Your task to perform on an android device: Open Chrome and go to the settings page Image 0: 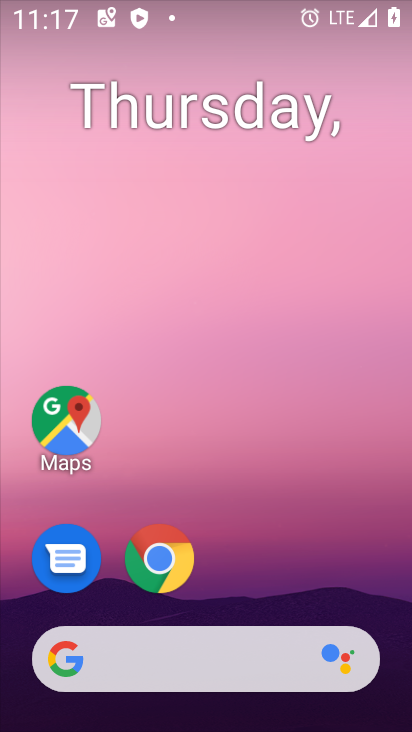
Step 0: press home button
Your task to perform on an android device: Open Chrome and go to the settings page Image 1: 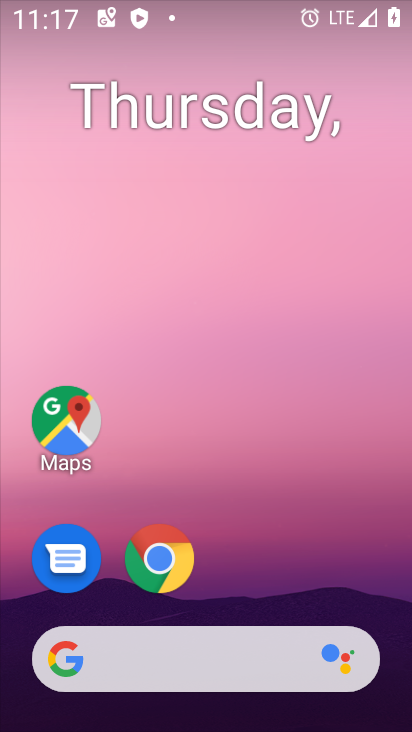
Step 1: drag from (329, 564) to (337, 108)
Your task to perform on an android device: Open Chrome and go to the settings page Image 2: 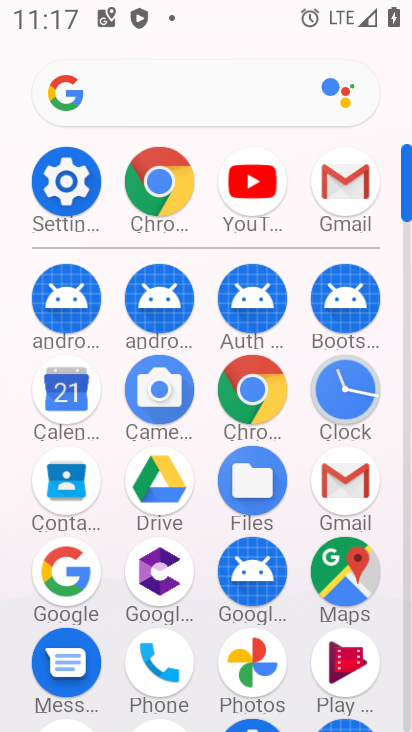
Step 2: click (263, 384)
Your task to perform on an android device: Open Chrome and go to the settings page Image 3: 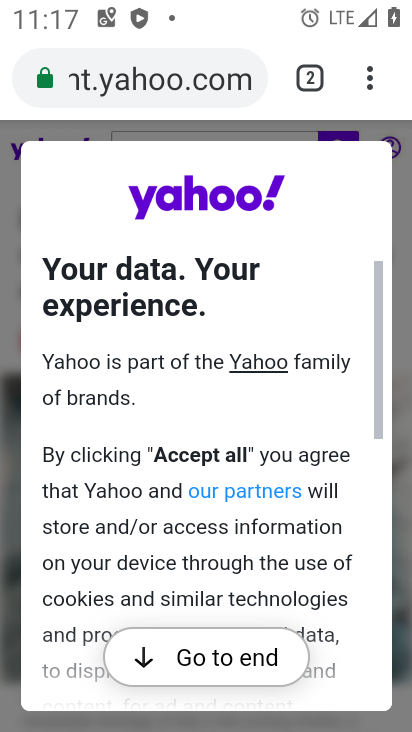
Step 3: click (370, 85)
Your task to perform on an android device: Open Chrome and go to the settings page Image 4: 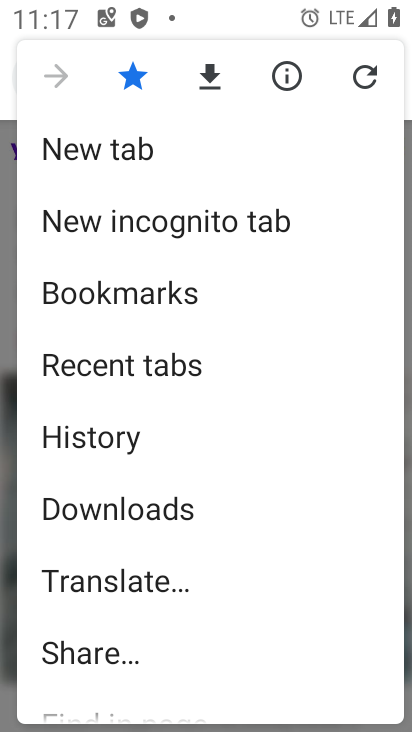
Step 4: drag from (340, 435) to (339, 338)
Your task to perform on an android device: Open Chrome and go to the settings page Image 5: 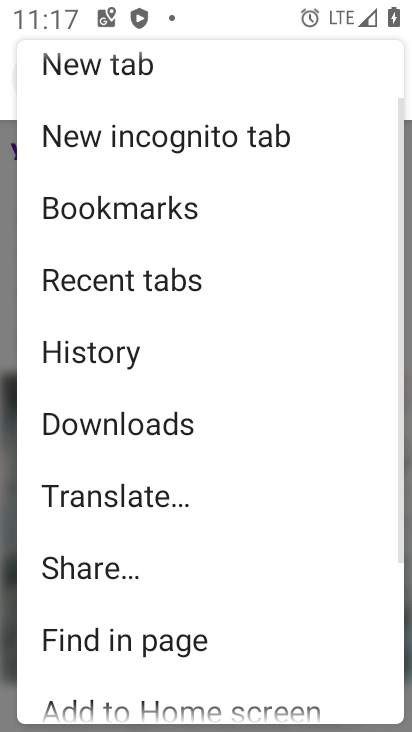
Step 5: drag from (340, 473) to (338, 367)
Your task to perform on an android device: Open Chrome and go to the settings page Image 6: 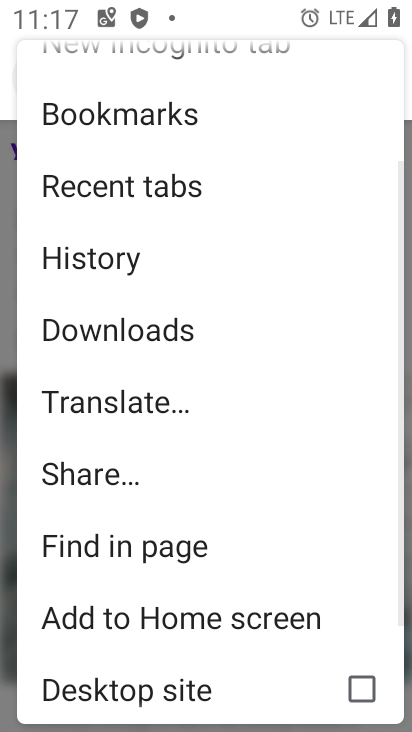
Step 6: drag from (316, 510) to (309, 340)
Your task to perform on an android device: Open Chrome and go to the settings page Image 7: 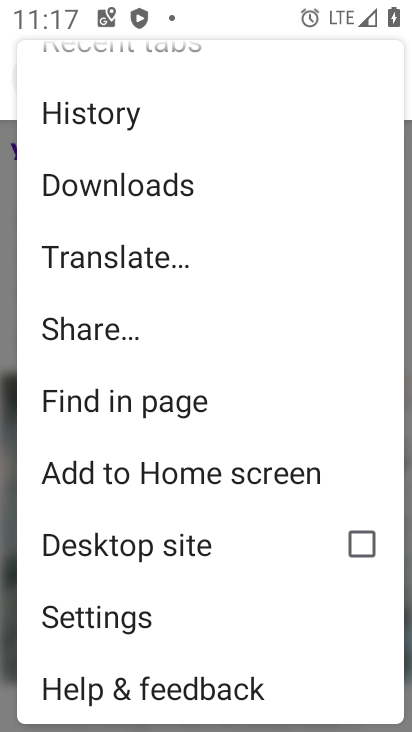
Step 7: click (269, 614)
Your task to perform on an android device: Open Chrome and go to the settings page Image 8: 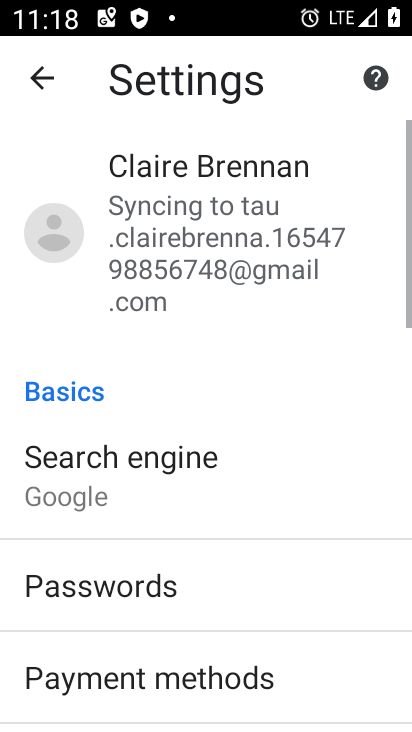
Step 8: task complete